Your task to perform on an android device: open app "Etsy: Buy & Sell Unique Items" Image 0: 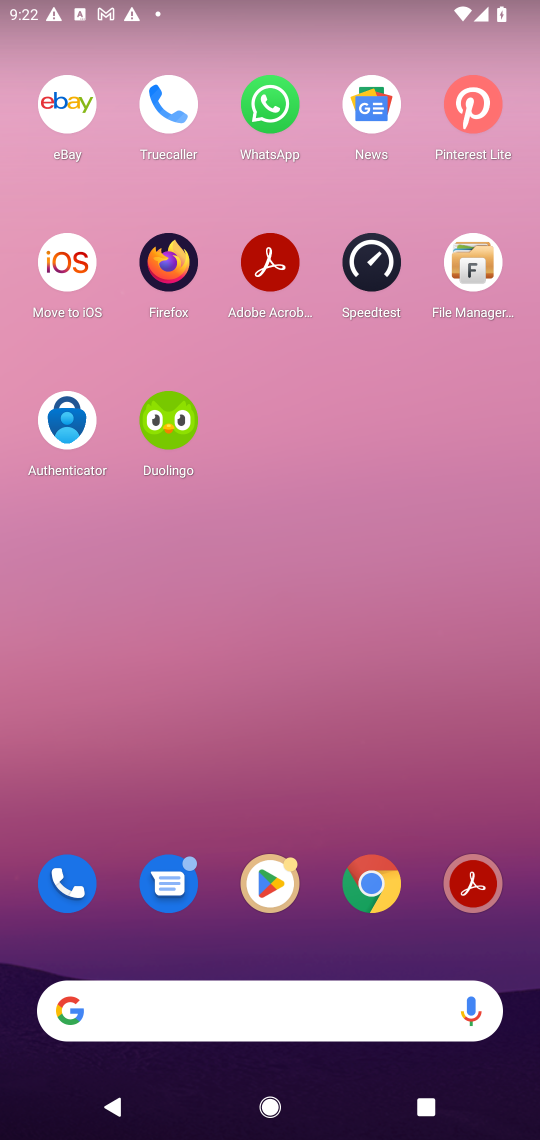
Step 0: click (292, 884)
Your task to perform on an android device: open app "Etsy: Buy & Sell Unique Items" Image 1: 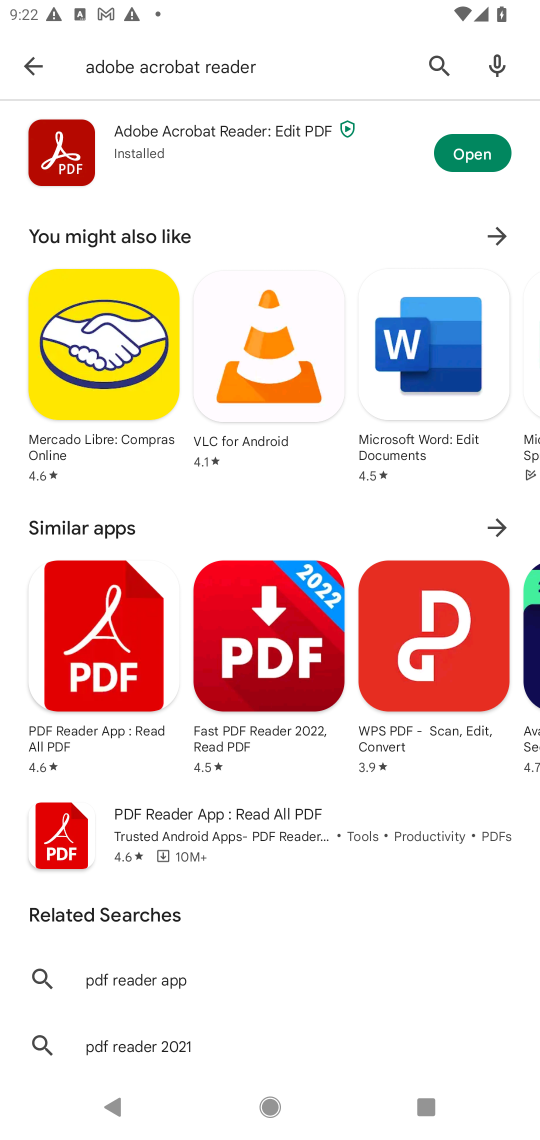
Step 1: click (440, 67)
Your task to perform on an android device: open app "Etsy: Buy & Sell Unique Items" Image 2: 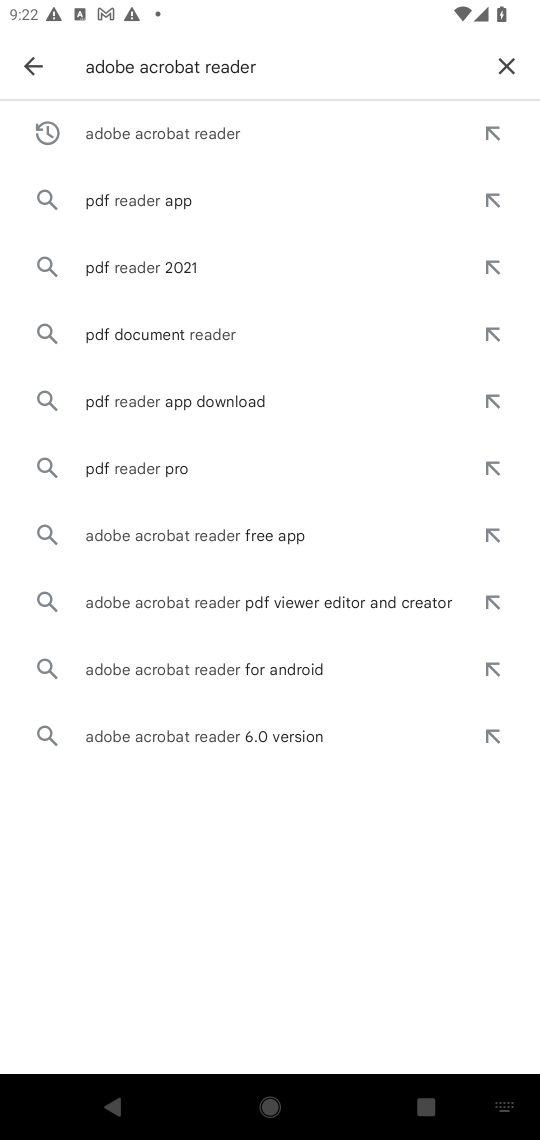
Step 2: click (506, 57)
Your task to perform on an android device: open app "Etsy: Buy & Sell Unique Items" Image 3: 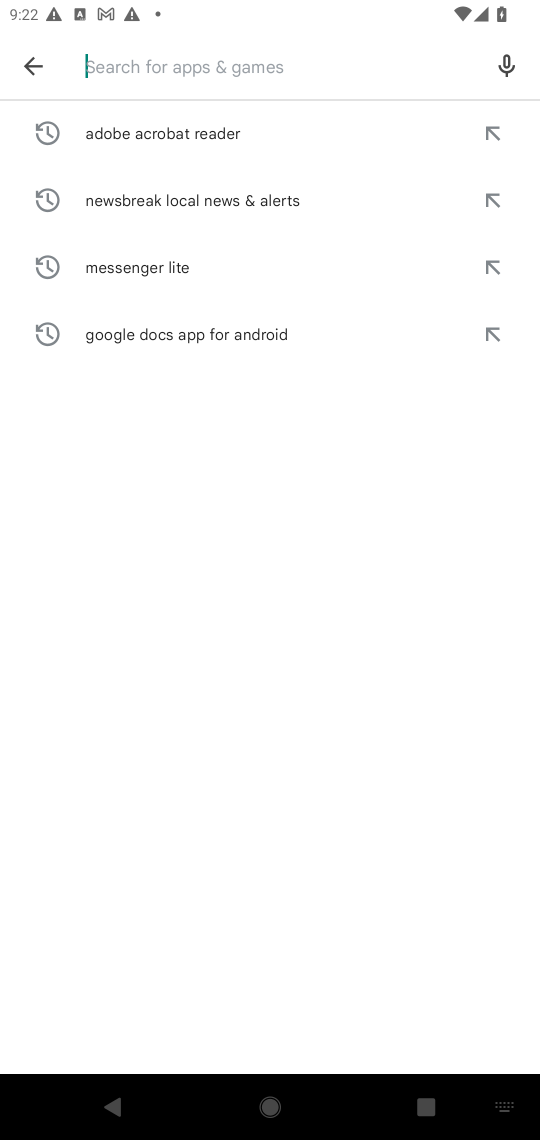
Step 3: type "Etsy: Buy & Sell Unique Items"
Your task to perform on an android device: open app "Etsy: Buy & Sell Unique Items" Image 4: 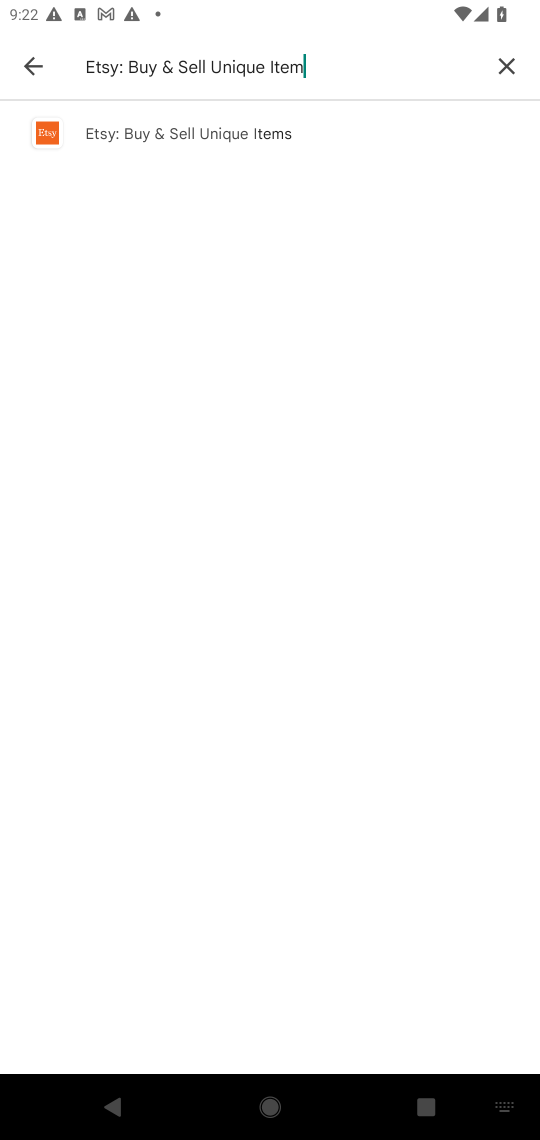
Step 4: type ""
Your task to perform on an android device: open app "Etsy: Buy & Sell Unique Items" Image 5: 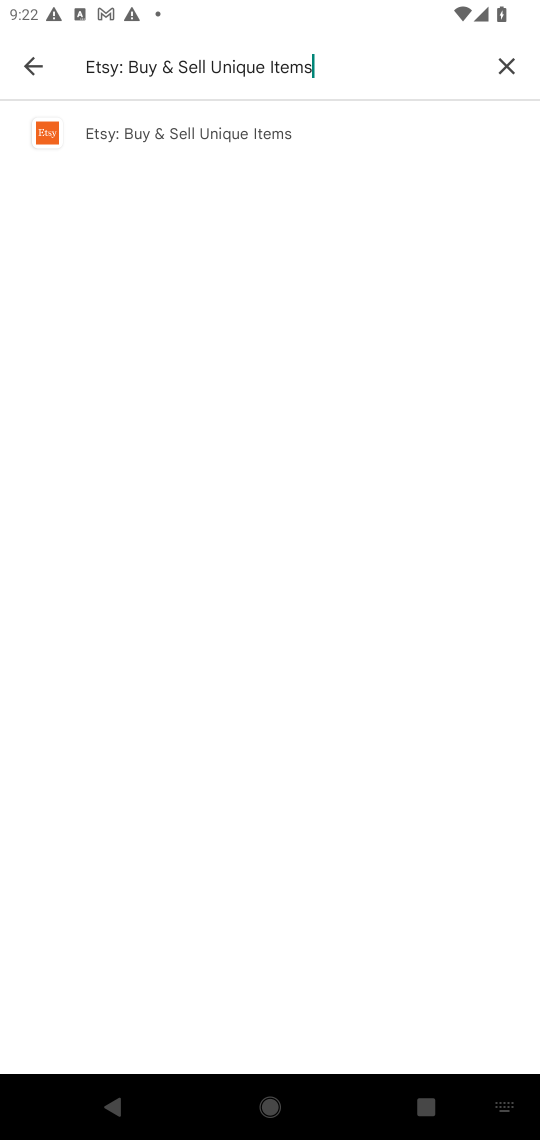
Step 5: click (177, 137)
Your task to perform on an android device: open app "Etsy: Buy & Sell Unique Items" Image 6: 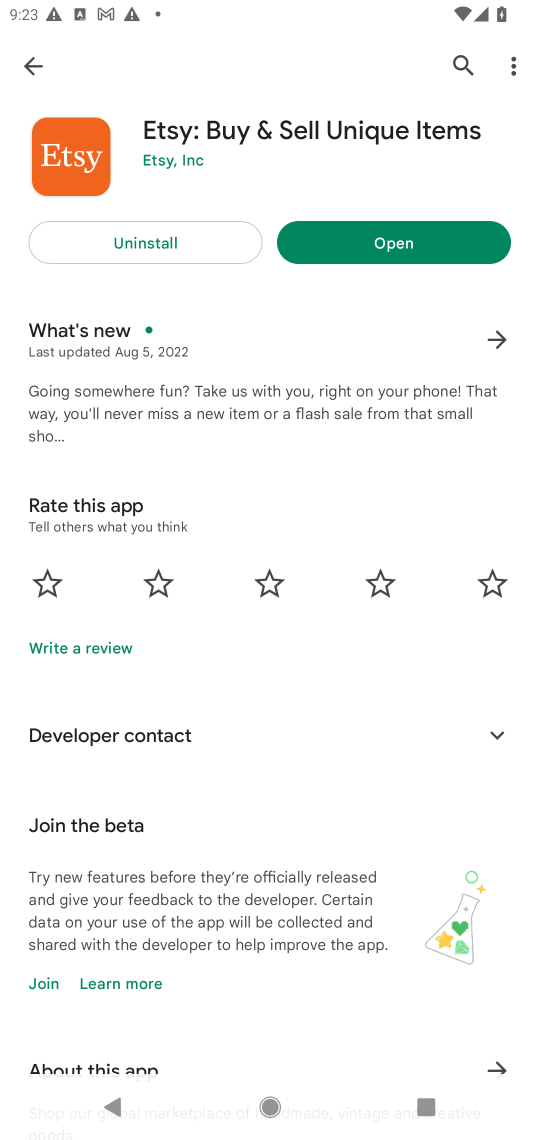
Step 6: click (372, 248)
Your task to perform on an android device: open app "Etsy: Buy & Sell Unique Items" Image 7: 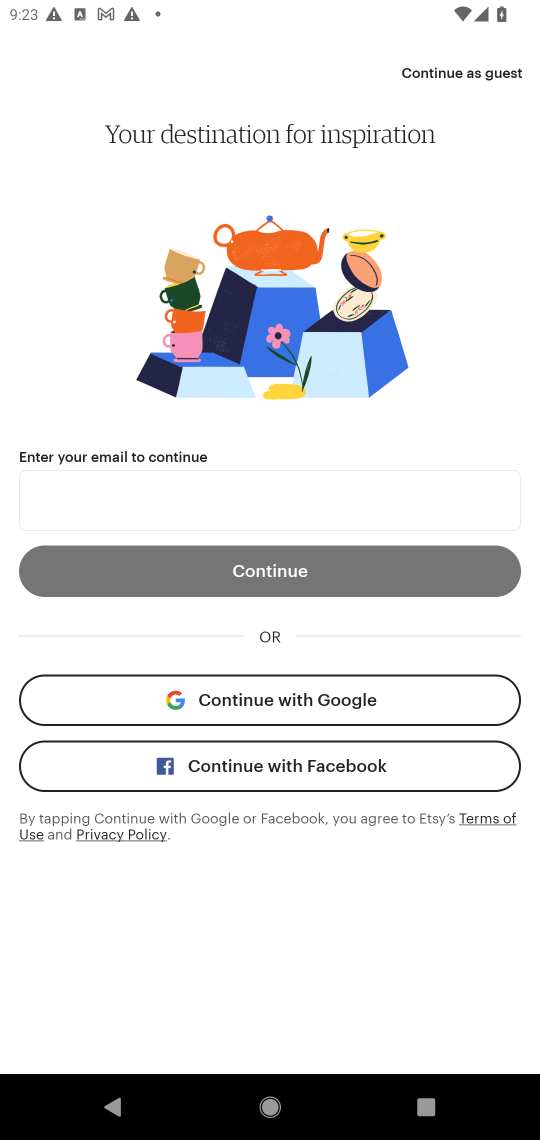
Step 7: task complete